Your task to perform on an android device: change the clock style Image 0: 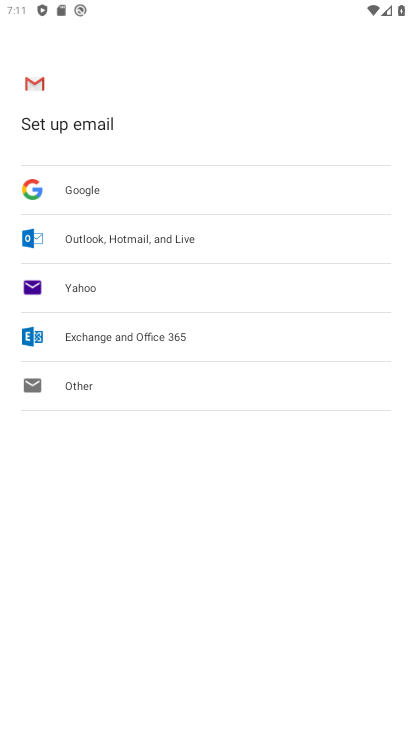
Step 0: press home button
Your task to perform on an android device: change the clock style Image 1: 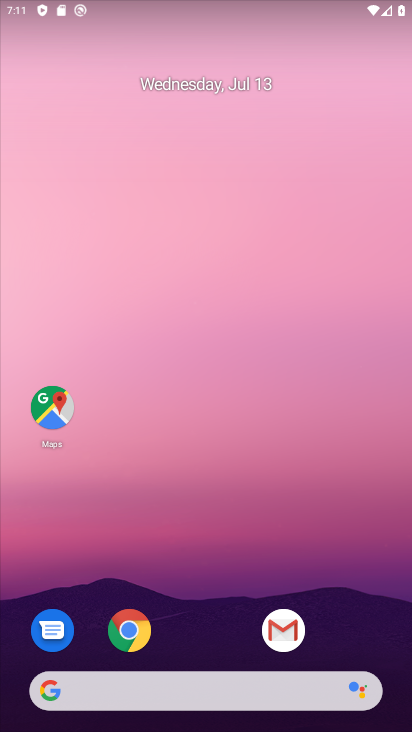
Step 1: drag from (204, 691) to (335, 192)
Your task to perform on an android device: change the clock style Image 2: 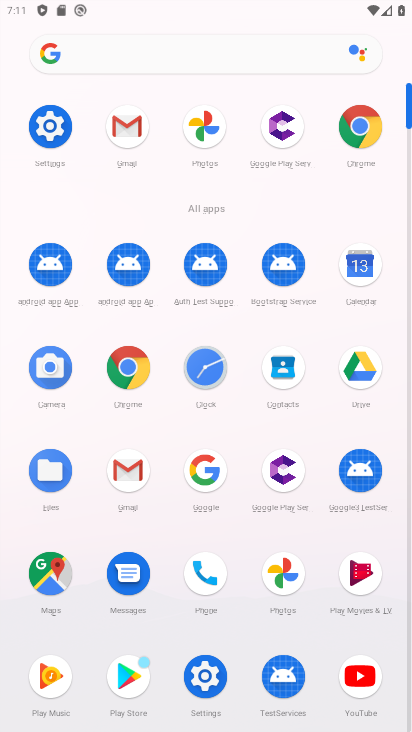
Step 2: click (195, 374)
Your task to perform on an android device: change the clock style Image 3: 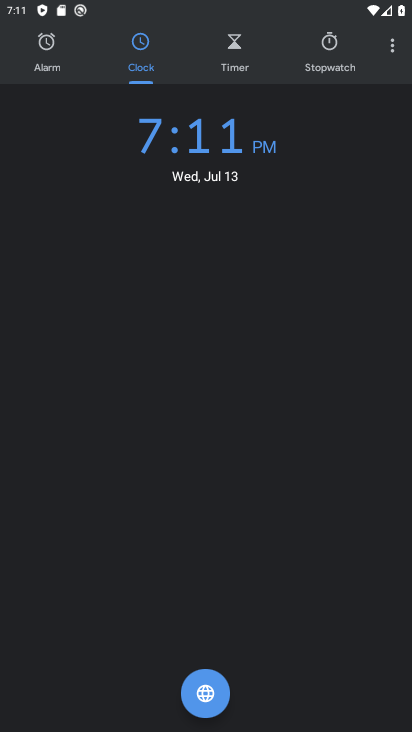
Step 3: click (398, 38)
Your task to perform on an android device: change the clock style Image 4: 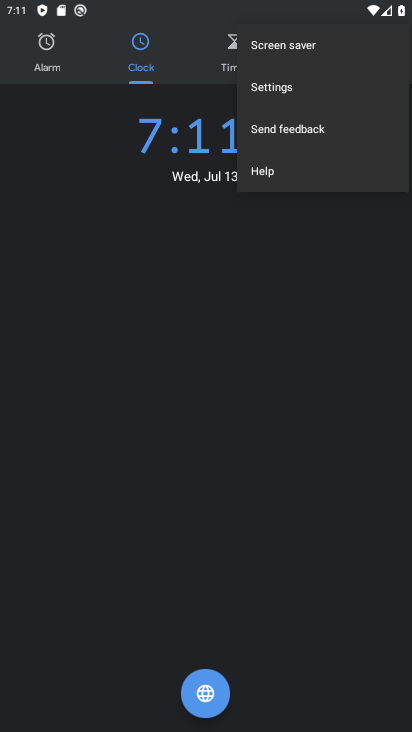
Step 4: click (275, 89)
Your task to perform on an android device: change the clock style Image 5: 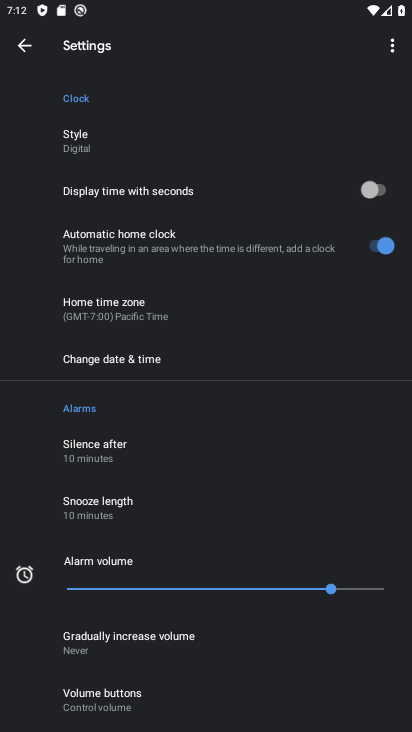
Step 5: click (118, 131)
Your task to perform on an android device: change the clock style Image 6: 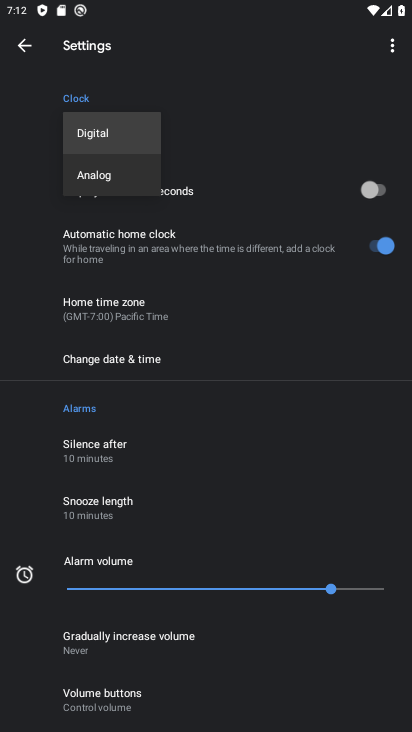
Step 6: click (98, 167)
Your task to perform on an android device: change the clock style Image 7: 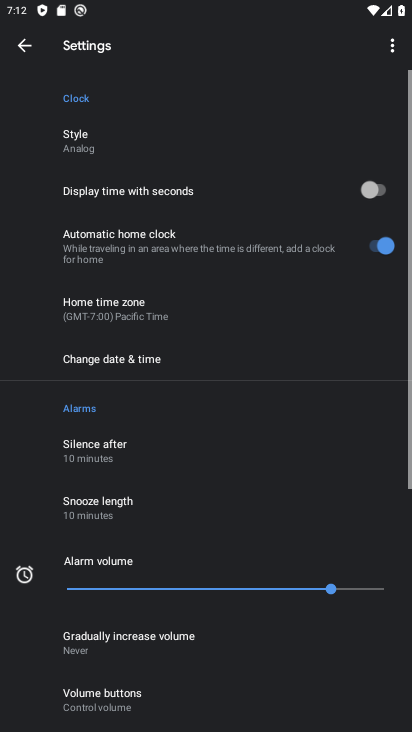
Step 7: task complete